Your task to perform on an android device: open app "ZOOM Cloud Meetings" (install if not already installed), go to login, and select forgot password Image 0: 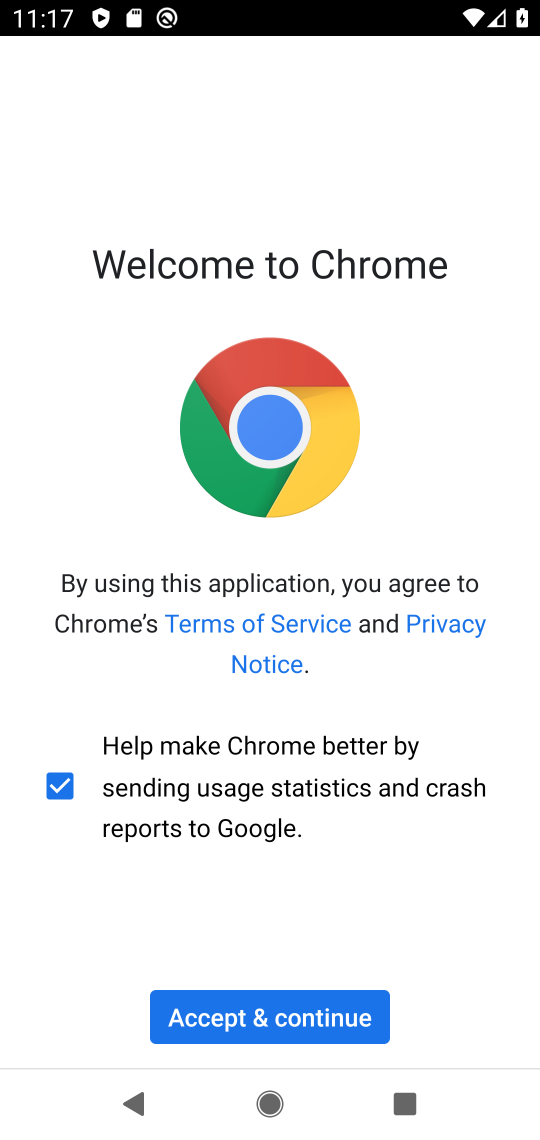
Step 0: press home button
Your task to perform on an android device: open app "ZOOM Cloud Meetings" (install if not already installed), go to login, and select forgot password Image 1: 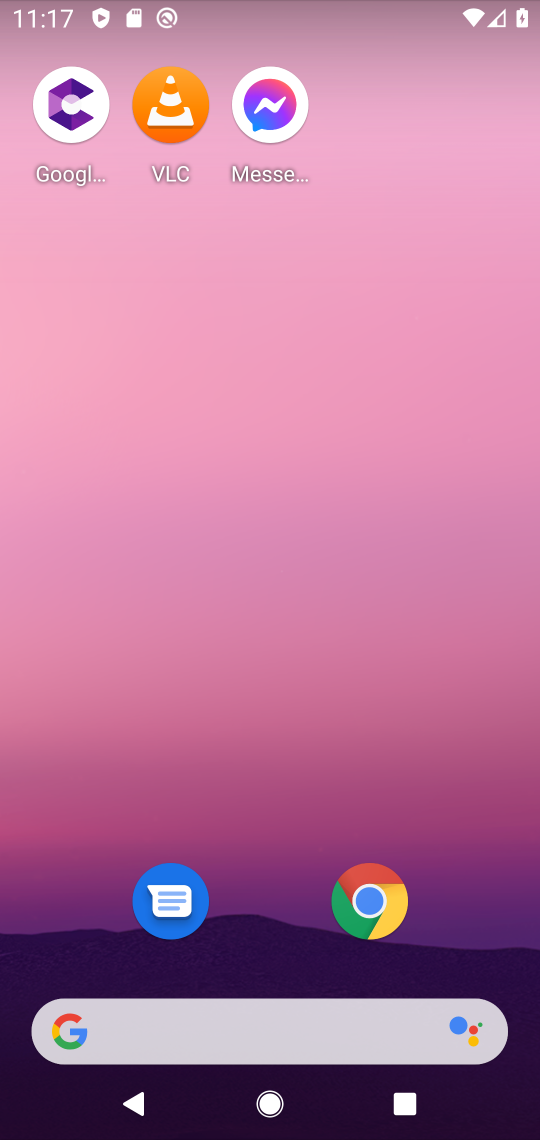
Step 1: drag from (268, 993) to (359, 137)
Your task to perform on an android device: open app "ZOOM Cloud Meetings" (install if not already installed), go to login, and select forgot password Image 2: 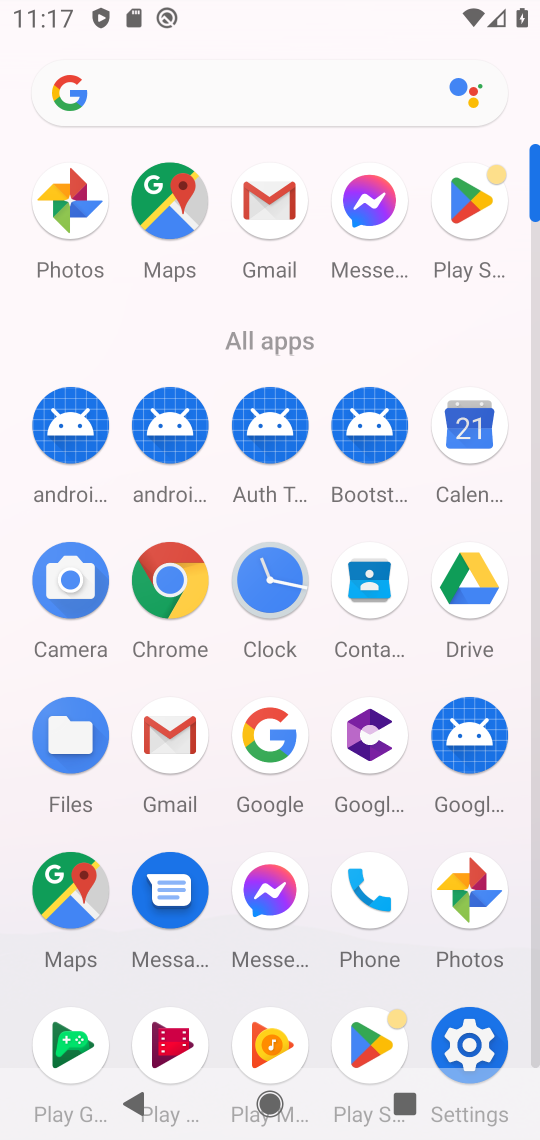
Step 2: click (458, 253)
Your task to perform on an android device: open app "ZOOM Cloud Meetings" (install if not already installed), go to login, and select forgot password Image 3: 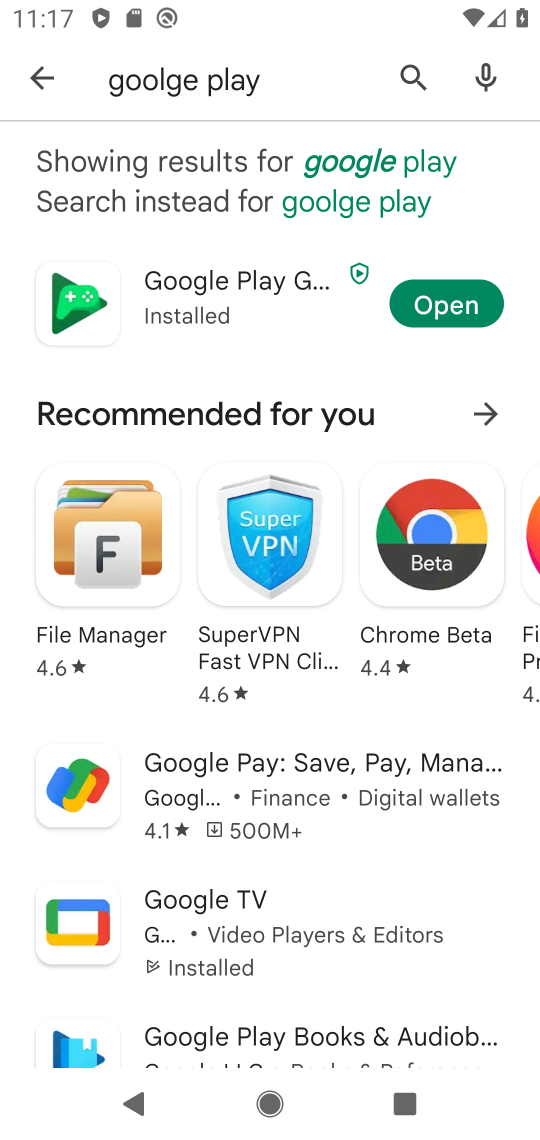
Step 3: click (409, 80)
Your task to perform on an android device: open app "ZOOM Cloud Meetings" (install if not already installed), go to login, and select forgot password Image 4: 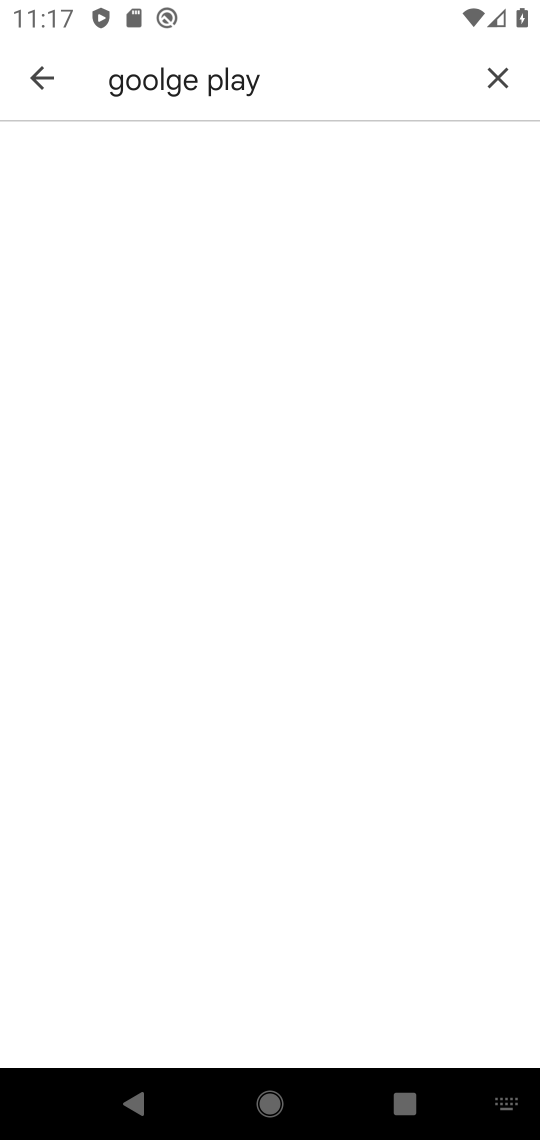
Step 4: click (482, 77)
Your task to perform on an android device: open app "ZOOM Cloud Meetings" (install if not already installed), go to login, and select forgot password Image 5: 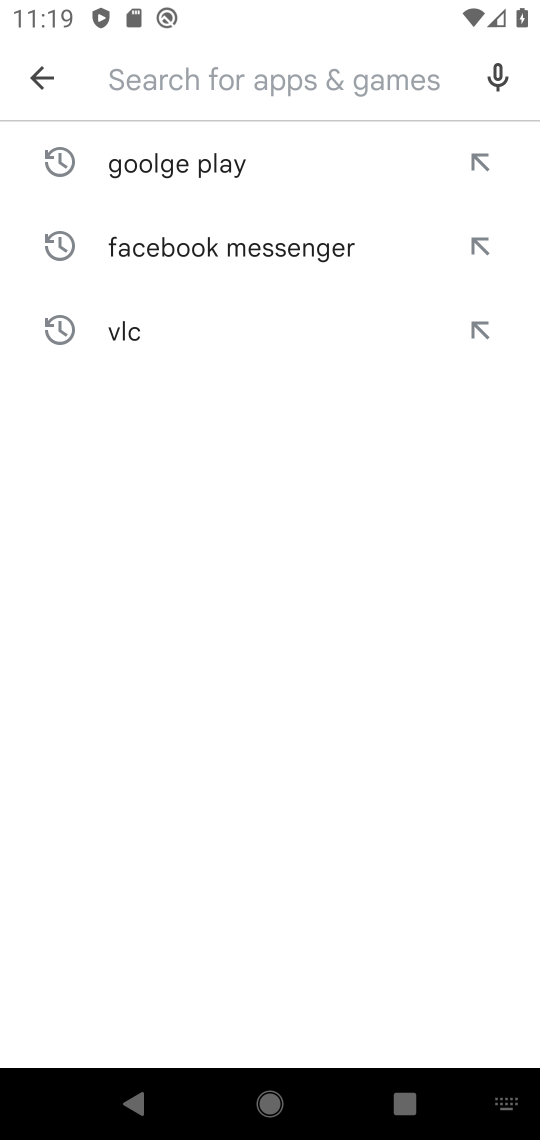
Step 5: type "zoom"
Your task to perform on an android device: open app "ZOOM Cloud Meetings" (install if not already installed), go to login, and select forgot password Image 6: 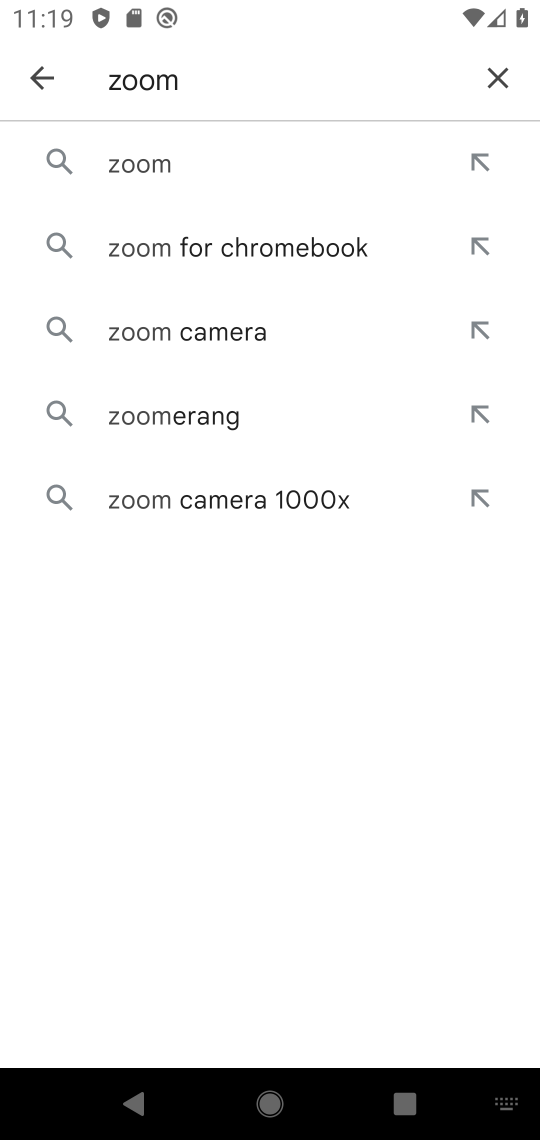
Step 6: click (167, 153)
Your task to perform on an android device: open app "ZOOM Cloud Meetings" (install if not already installed), go to login, and select forgot password Image 7: 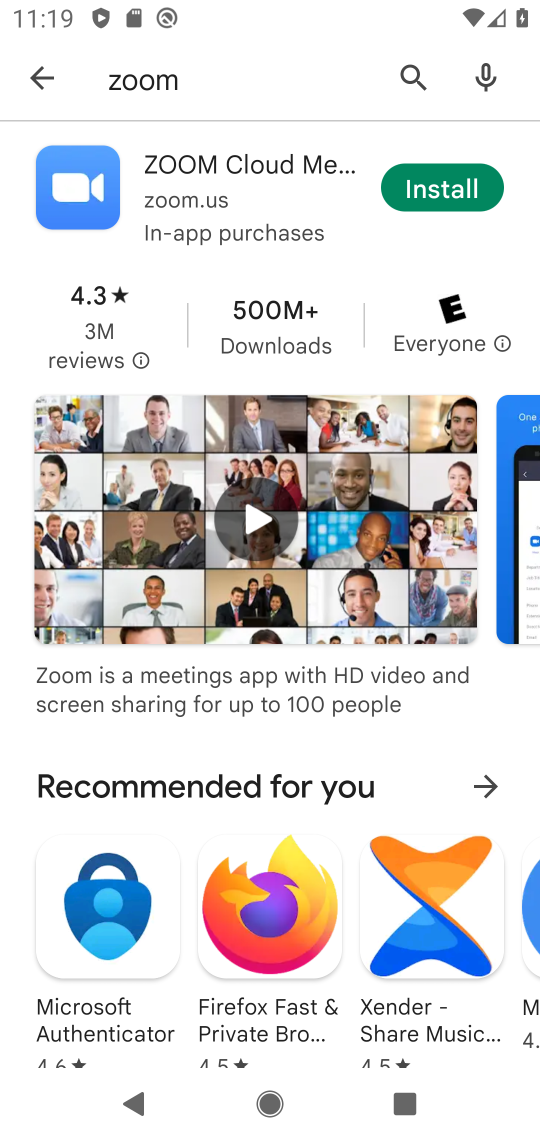
Step 7: click (436, 193)
Your task to perform on an android device: open app "ZOOM Cloud Meetings" (install if not already installed), go to login, and select forgot password Image 8: 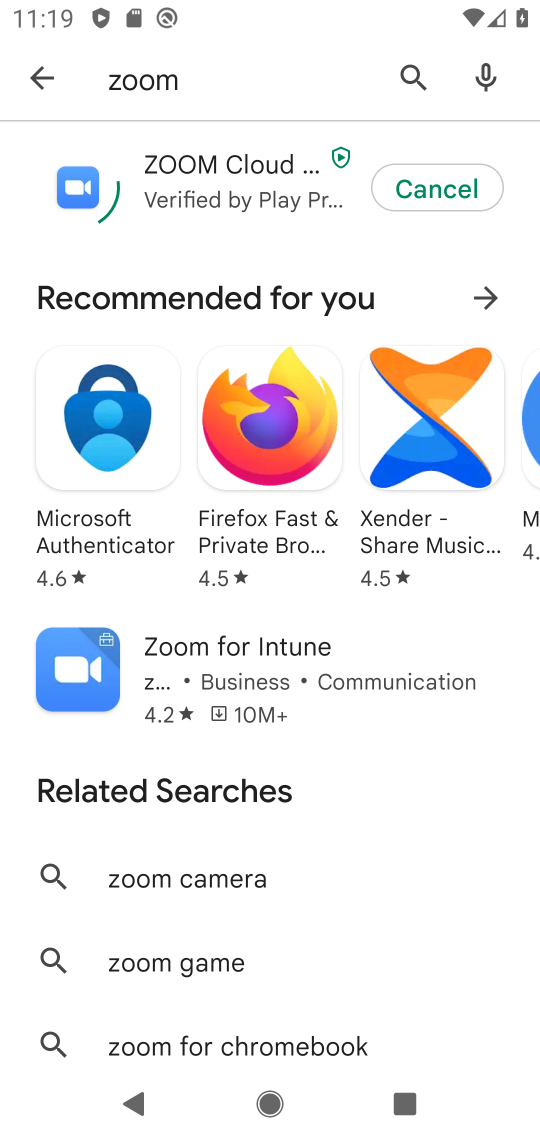
Step 8: task complete